Your task to perform on an android device: Open the calendar app, open the side menu, and click the "Day" option Image 0: 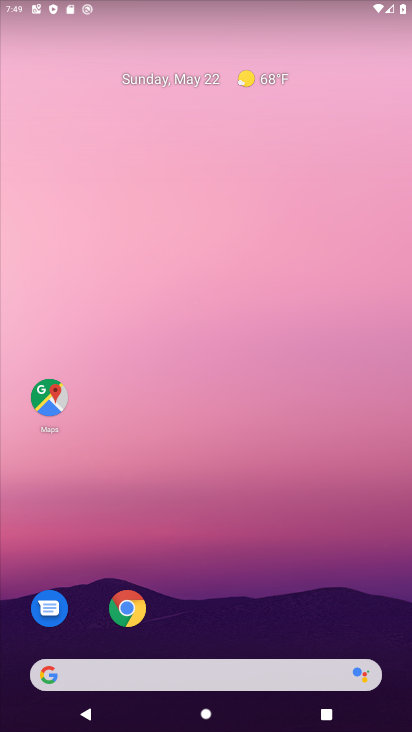
Step 0: drag from (226, 722) to (201, 232)
Your task to perform on an android device: Open the calendar app, open the side menu, and click the "Day" option Image 1: 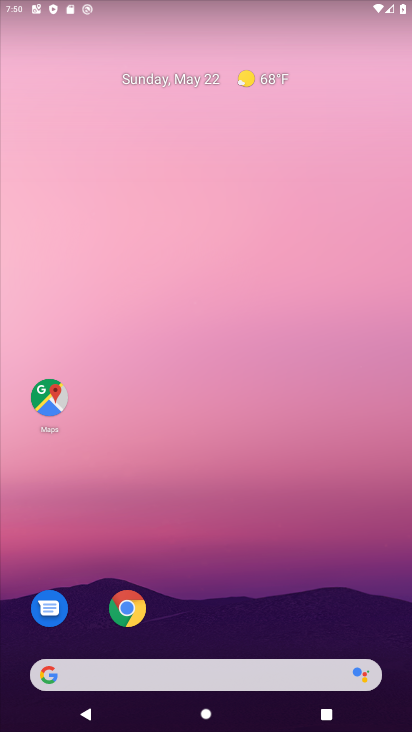
Step 1: drag from (250, 726) to (251, 162)
Your task to perform on an android device: Open the calendar app, open the side menu, and click the "Day" option Image 2: 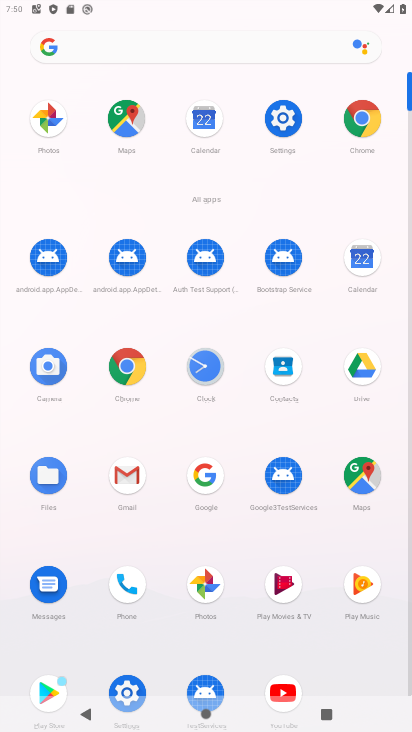
Step 2: click (363, 258)
Your task to perform on an android device: Open the calendar app, open the side menu, and click the "Day" option Image 3: 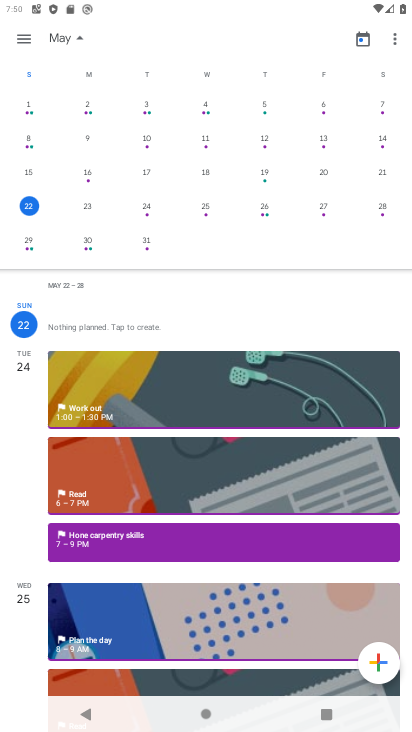
Step 3: click (19, 36)
Your task to perform on an android device: Open the calendar app, open the side menu, and click the "Day" option Image 4: 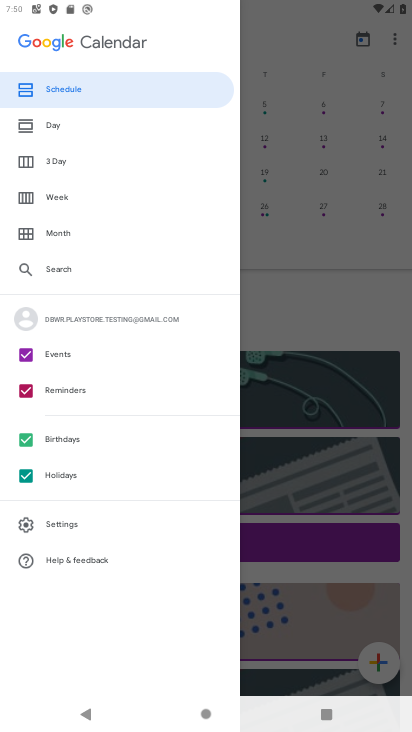
Step 4: click (64, 126)
Your task to perform on an android device: Open the calendar app, open the side menu, and click the "Day" option Image 5: 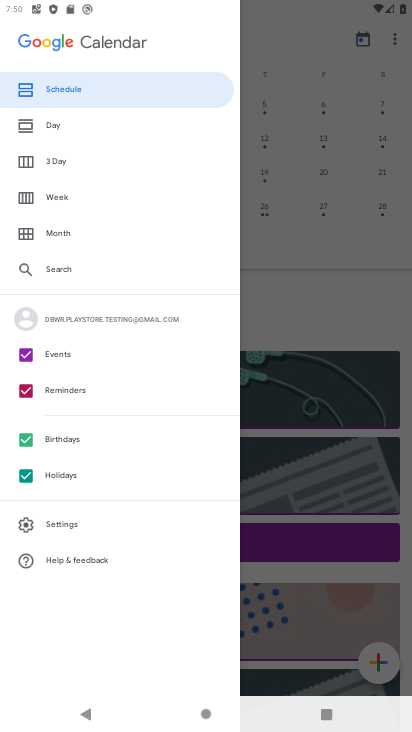
Step 5: click (54, 124)
Your task to perform on an android device: Open the calendar app, open the side menu, and click the "Day" option Image 6: 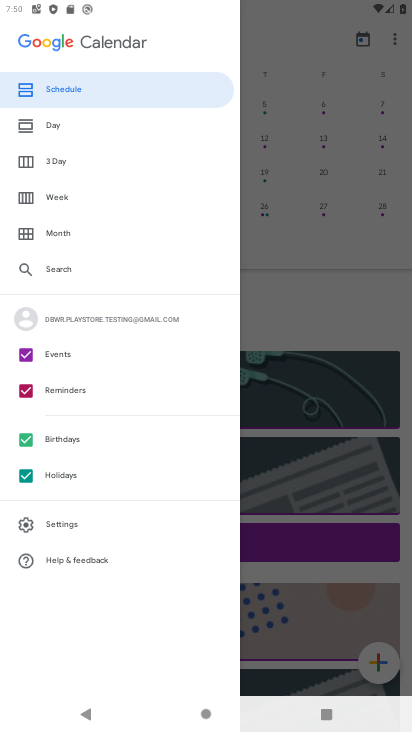
Step 6: click (51, 125)
Your task to perform on an android device: Open the calendar app, open the side menu, and click the "Day" option Image 7: 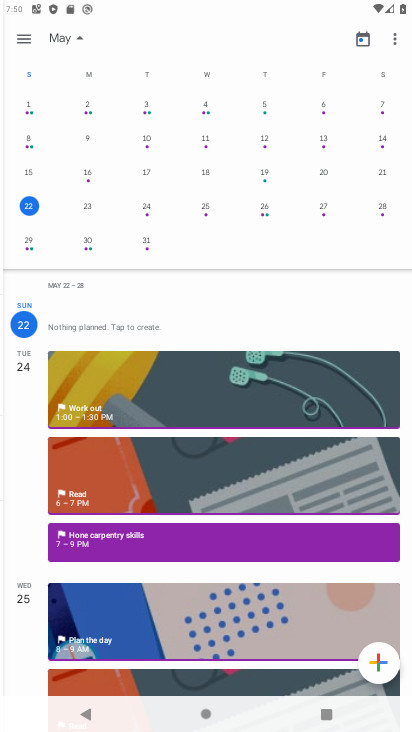
Step 7: click (49, 125)
Your task to perform on an android device: Open the calendar app, open the side menu, and click the "Day" option Image 8: 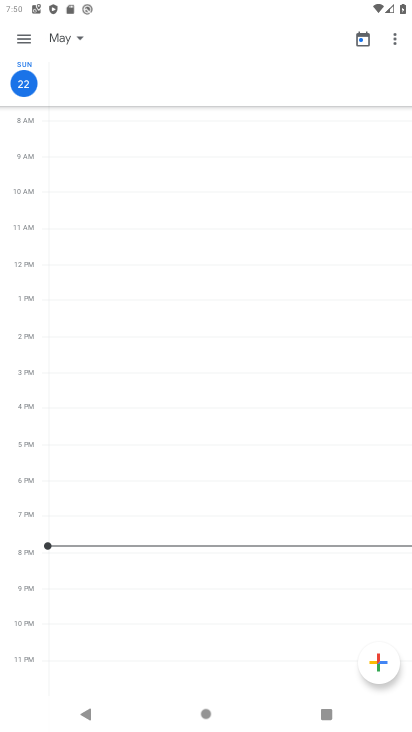
Step 8: task complete